Your task to perform on an android device: search for starred emails in the gmail app Image 0: 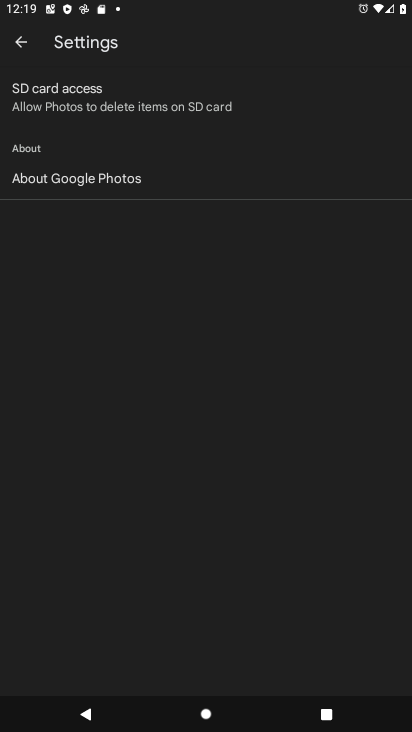
Step 0: press home button
Your task to perform on an android device: search for starred emails in the gmail app Image 1: 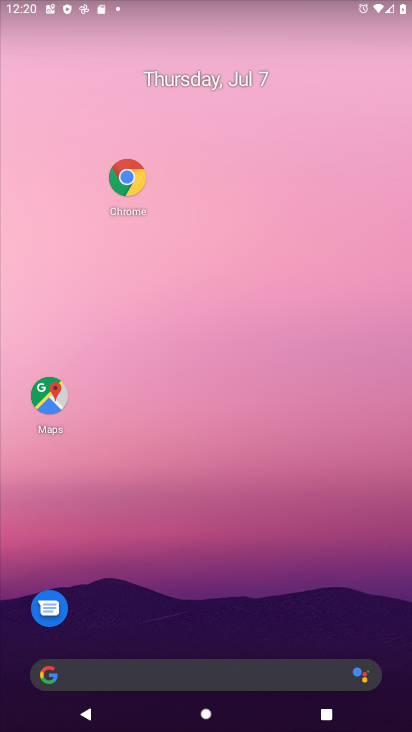
Step 1: drag from (184, 561) to (245, 200)
Your task to perform on an android device: search for starred emails in the gmail app Image 2: 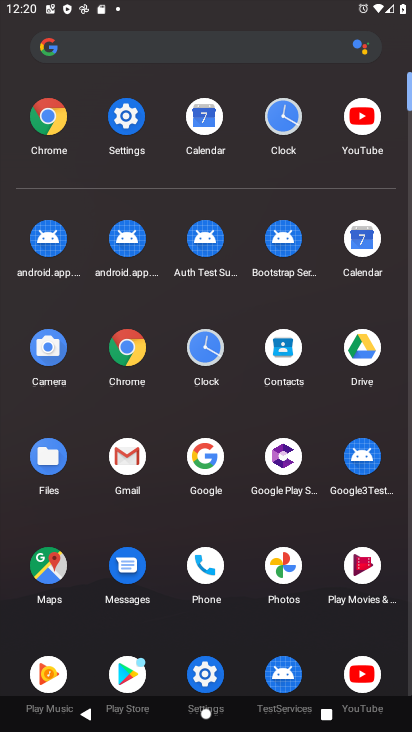
Step 2: click (113, 466)
Your task to perform on an android device: search for starred emails in the gmail app Image 3: 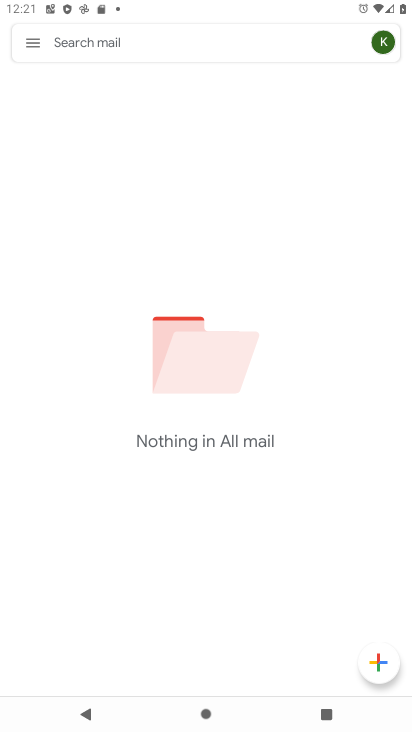
Step 3: click (33, 46)
Your task to perform on an android device: search for starred emails in the gmail app Image 4: 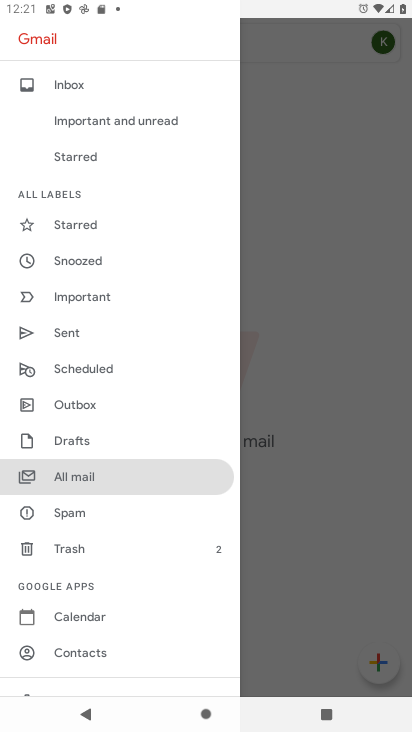
Step 4: click (87, 223)
Your task to perform on an android device: search for starred emails in the gmail app Image 5: 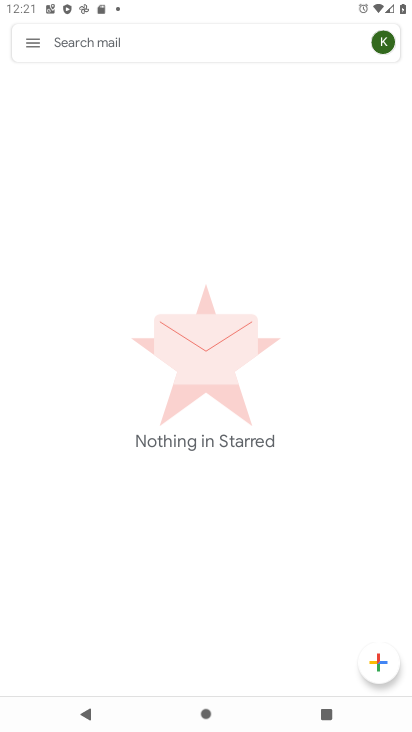
Step 5: task complete